Your task to perform on an android device: Go to network settings Image 0: 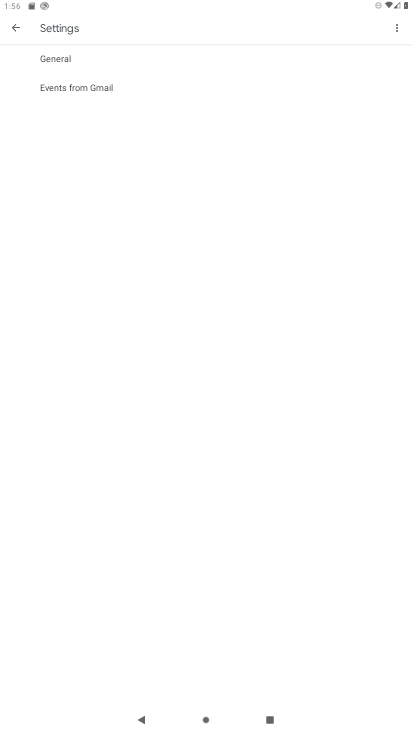
Step 0: press home button
Your task to perform on an android device: Go to network settings Image 1: 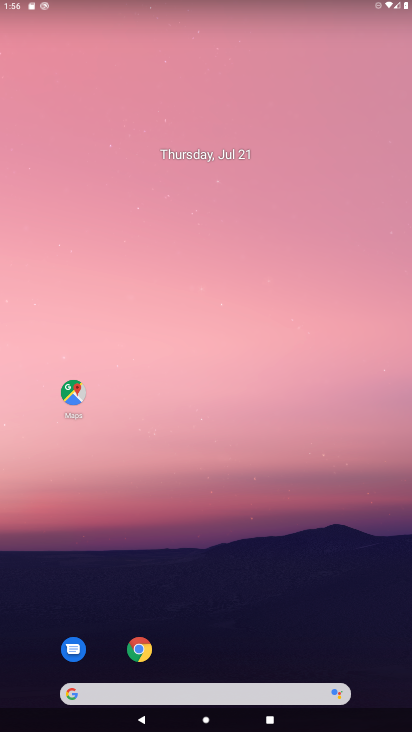
Step 1: drag from (265, 615) to (248, 37)
Your task to perform on an android device: Go to network settings Image 2: 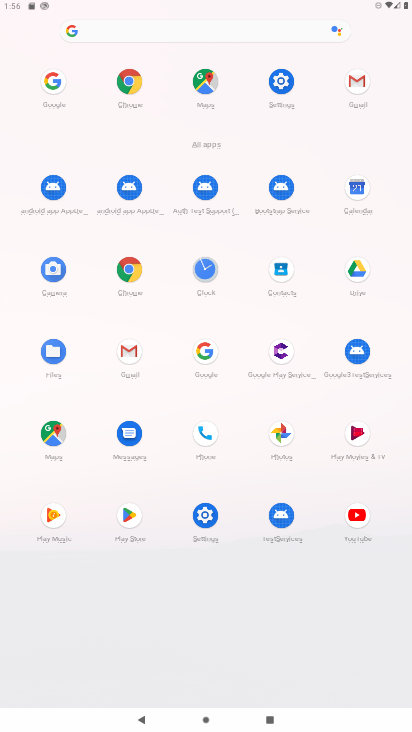
Step 2: click (283, 95)
Your task to perform on an android device: Go to network settings Image 3: 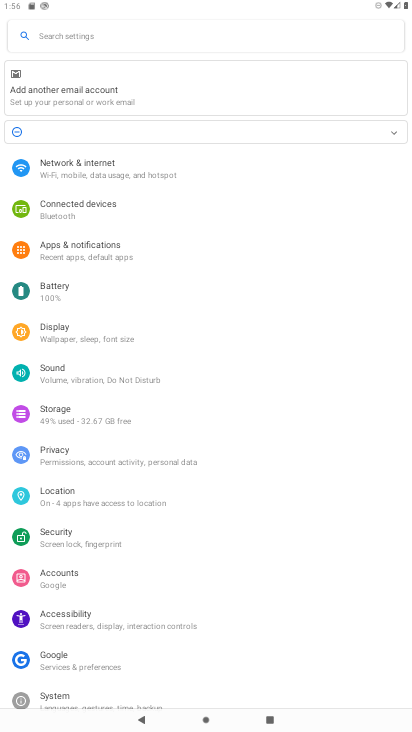
Step 3: click (90, 177)
Your task to perform on an android device: Go to network settings Image 4: 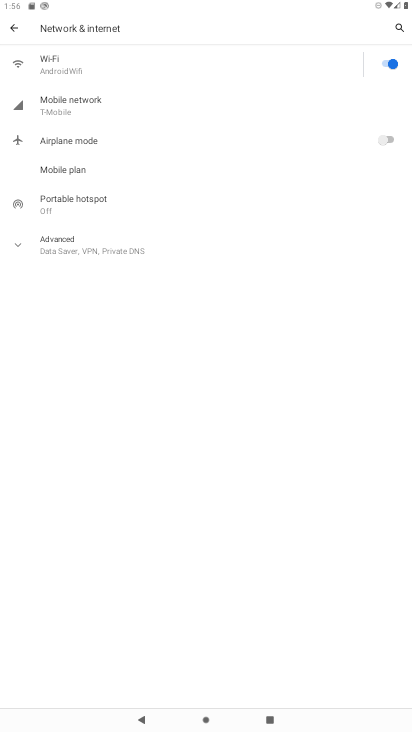
Step 4: task complete